Your task to perform on an android device: Go to Amazon Image 0: 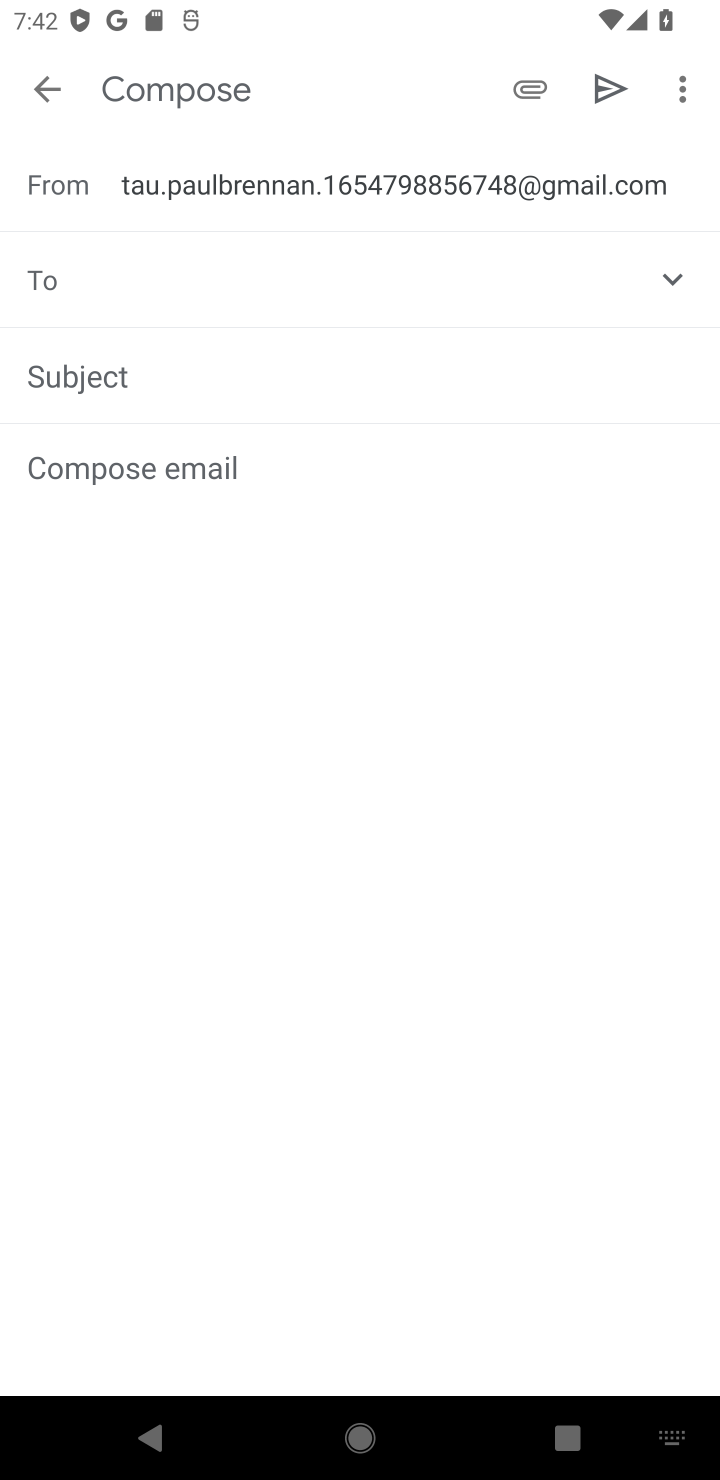
Step 0: press home button
Your task to perform on an android device: Go to Amazon Image 1: 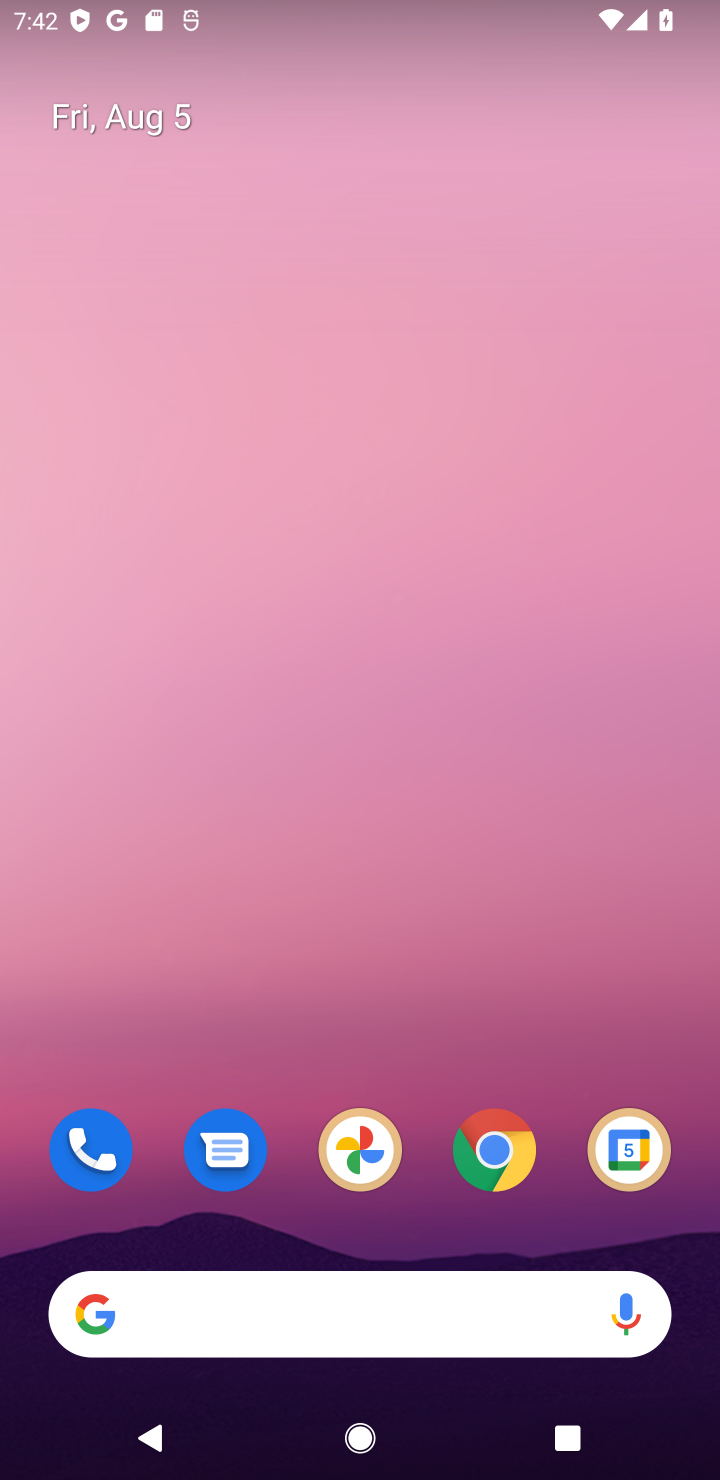
Step 1: drag from (420, 1051) to (430, 340)
Your task to perform on an android device: Go to Amazon Image 2: 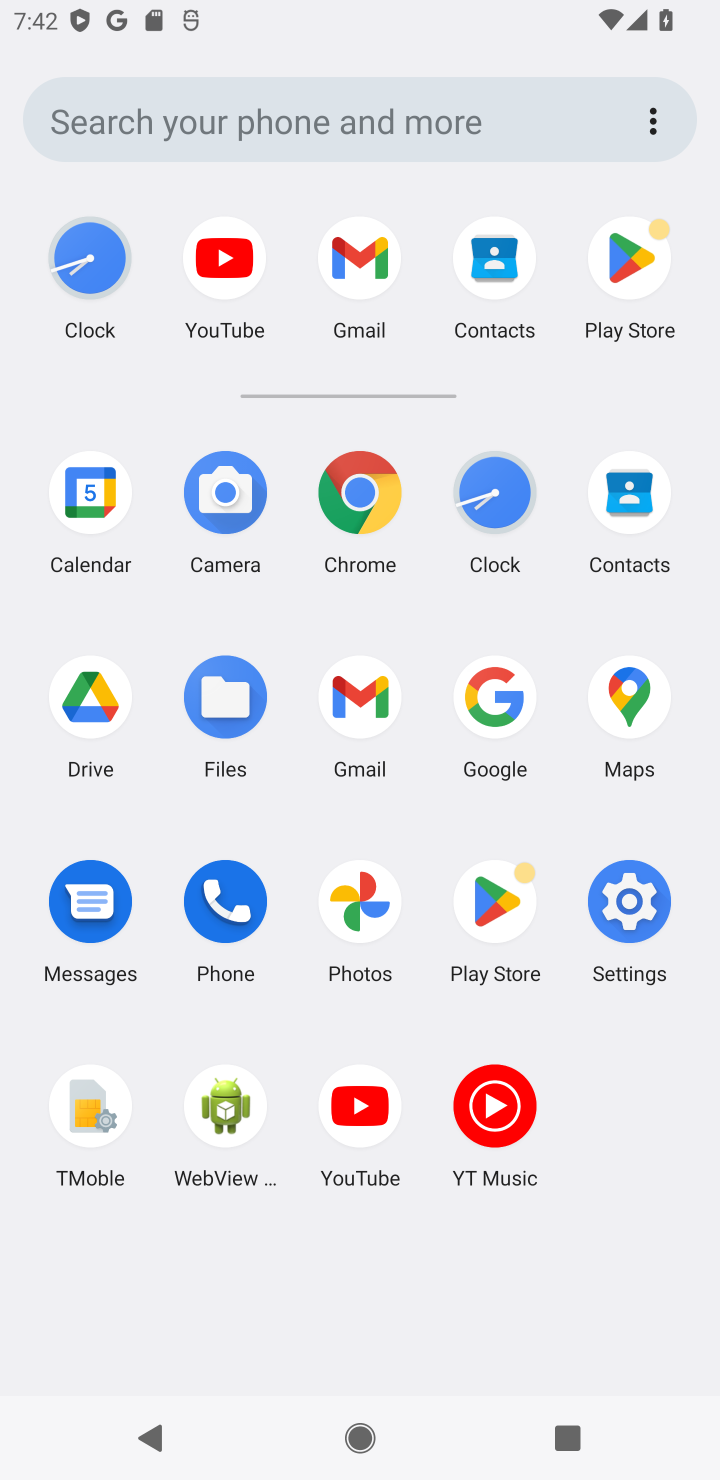
Step 2: click (364, 507)
Your task to perform on an android device: Go to Amazon Image 3: 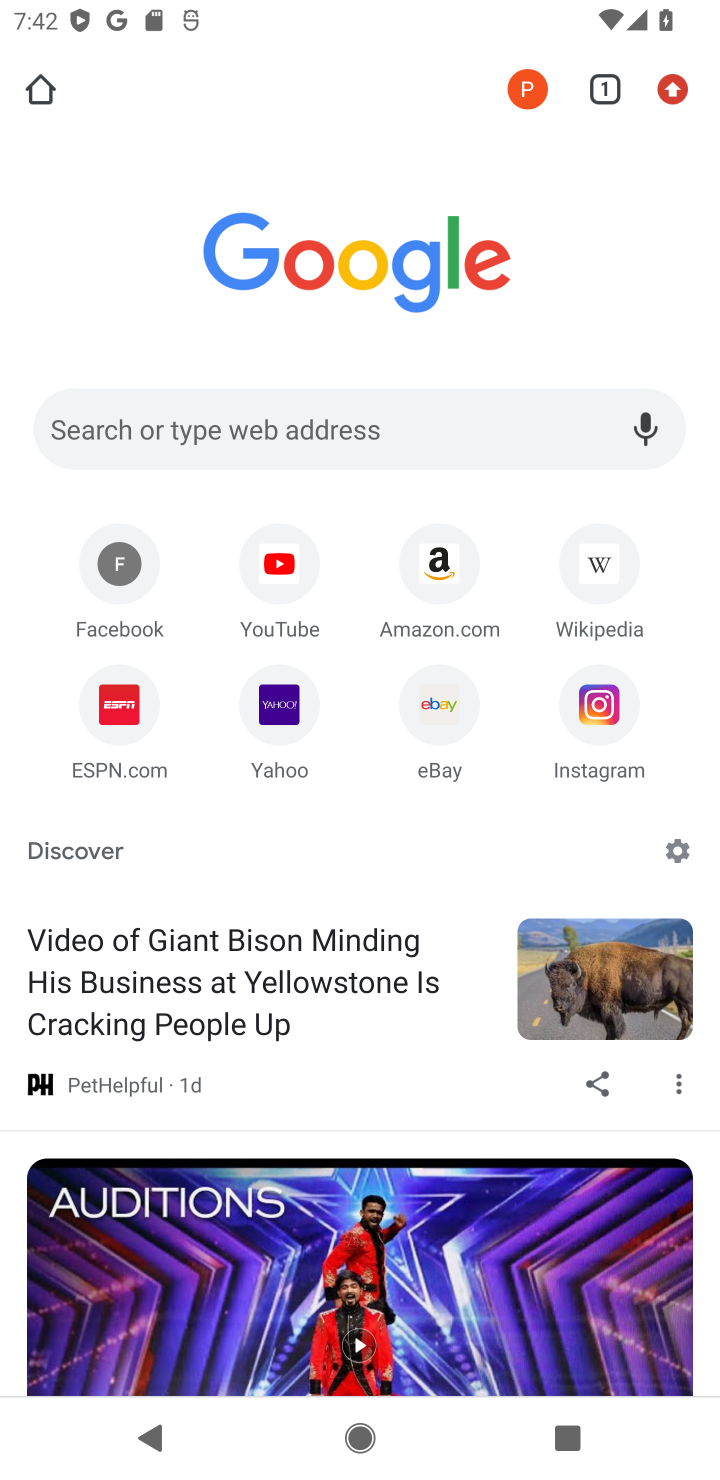
Step 3: click (484, 385)
Your task to perform on an android device: Go to Amazon Image 4: 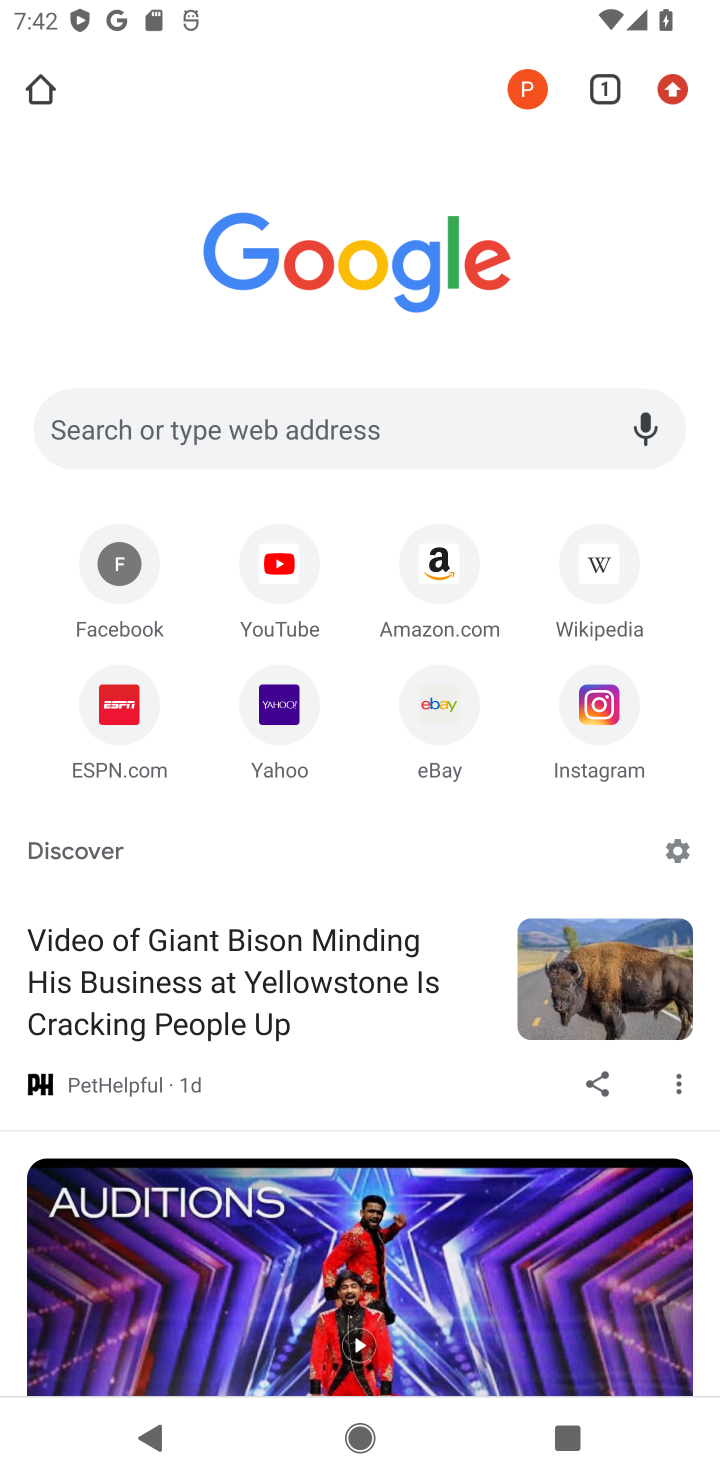
Step 4: click (392, 441)
Your task to perform on an android device: Go to Amazon Image 5: 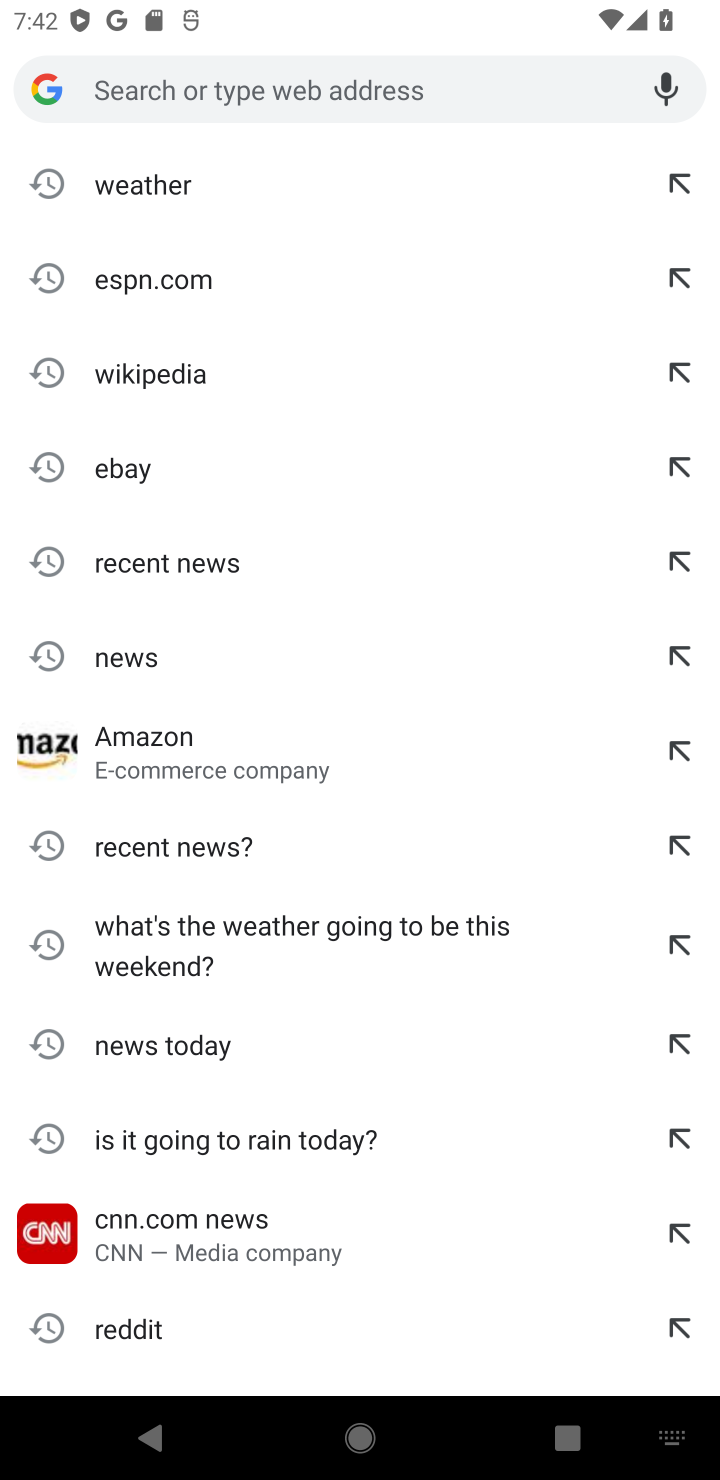
Step 5: type "amazon"
Your task to perform on an android device: Go to Amazon Image 6: 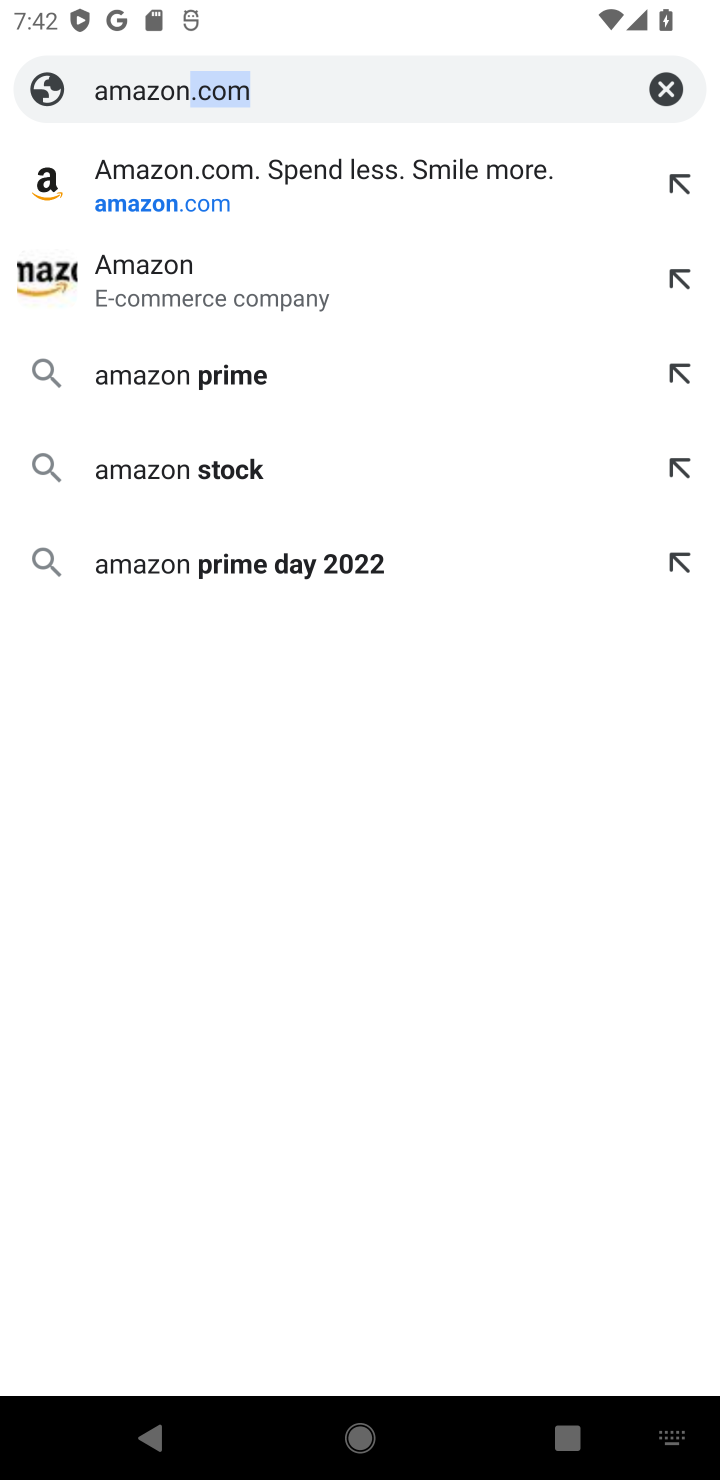
Step 6: click (333, 169)
Your task to perform on an android device: Go to Amazon Image 7: 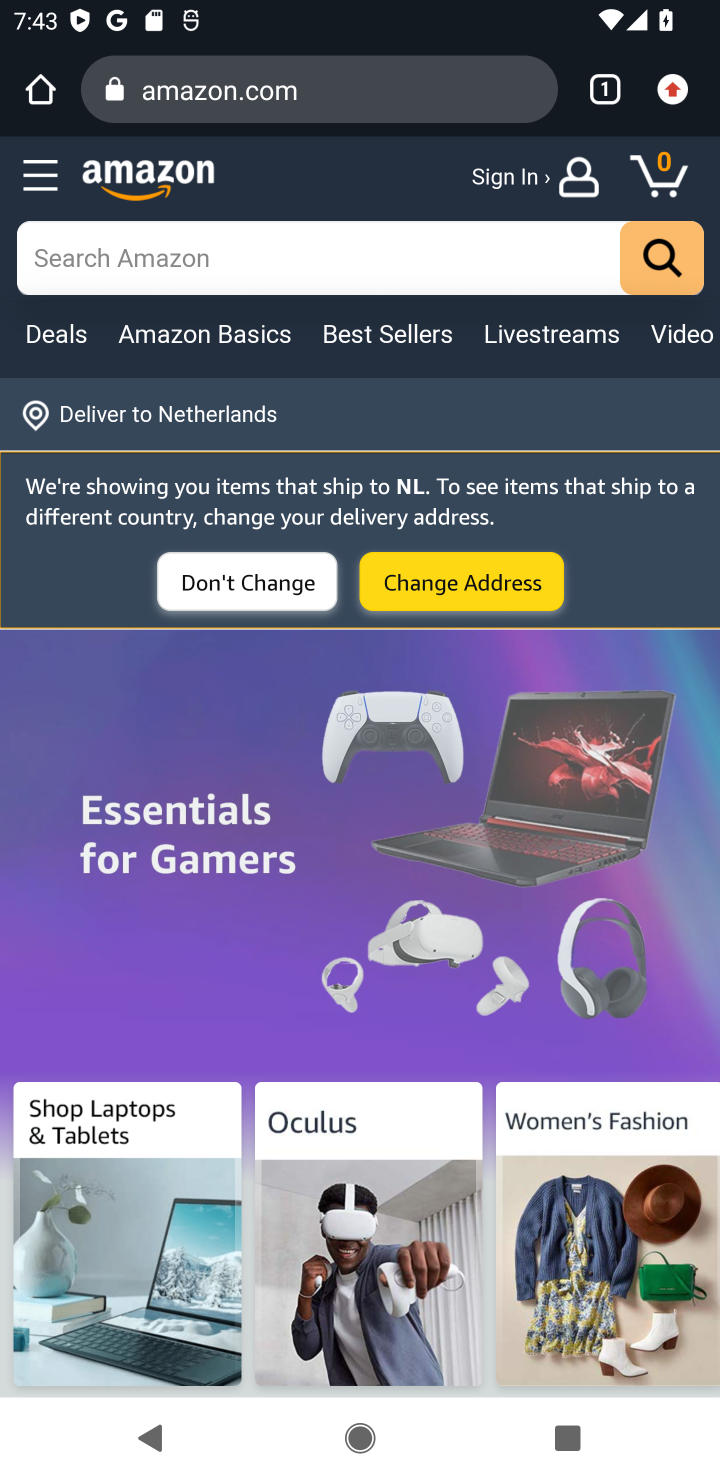
Step 7: task complete